Your task to perform on an android device: When is my next appointment? Image 0: 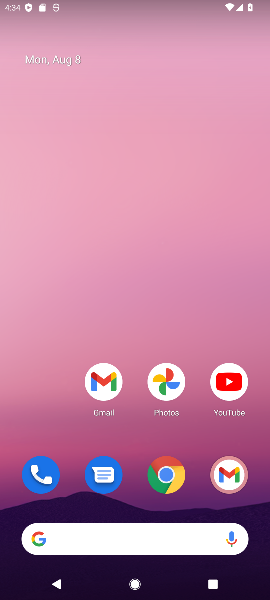
Step 0: press home button
Your task to perform on an android device: When is my next appointment? Image 1: 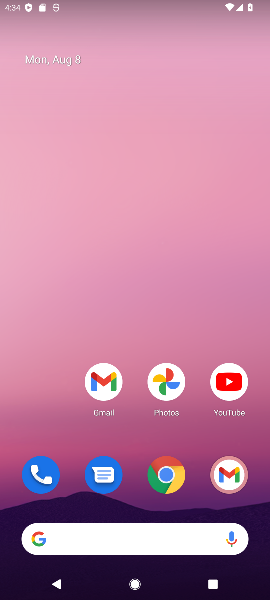
Step 1: drag from (68, 431) to (67, 178)
Your task to perform on an android device: When is my next appointment? Image 2: 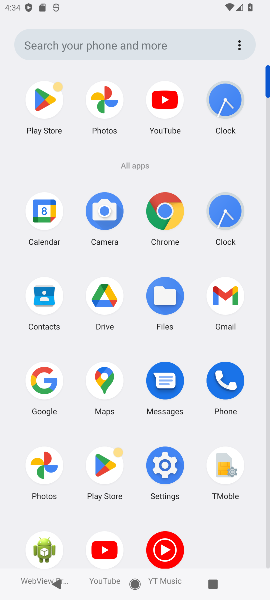
Step 2: click (40, 212)
Your task to perform on an android device: When is my next appointment? Image 3: 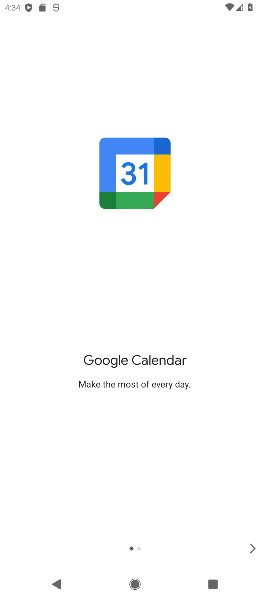
Step 3: click (246, 546)
Your task to perform on an android device: When is my next appointment? Image 4: 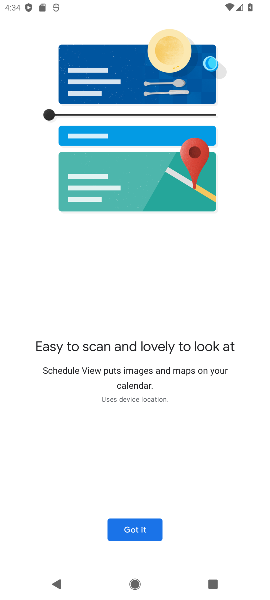
Step 4: click (139, 531)
Your task to perform on an android device: When is my next appointment? Image 5: 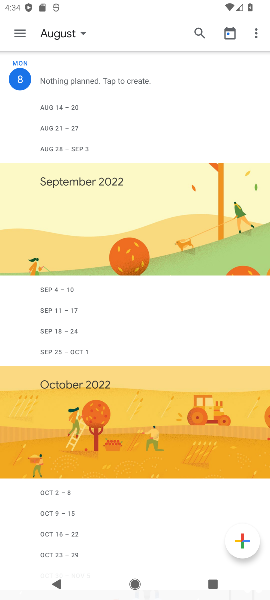
Step 5: task complete